Your task to perform on an android device: Open calendar and show me the third week of next month Image 0: 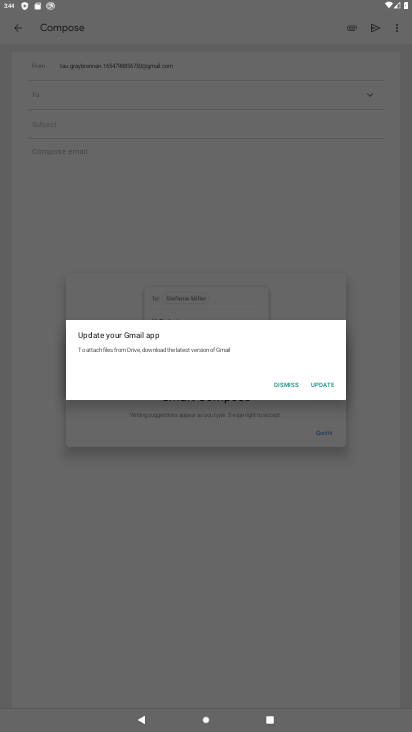
Step 0: press home button
Your task to perform on an android device: Open calendar and show me the third week of next month Image 1: 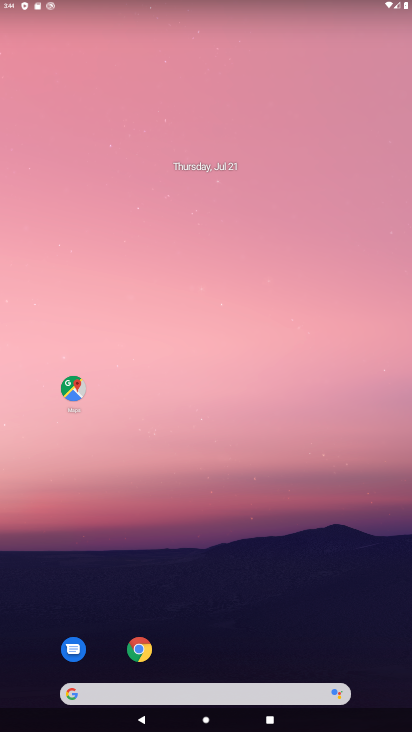
Step 1: drag from (193, 646) to (101, 78)
Your task to perform on an android device: Open calendar and show me the third week of next month Image 2: 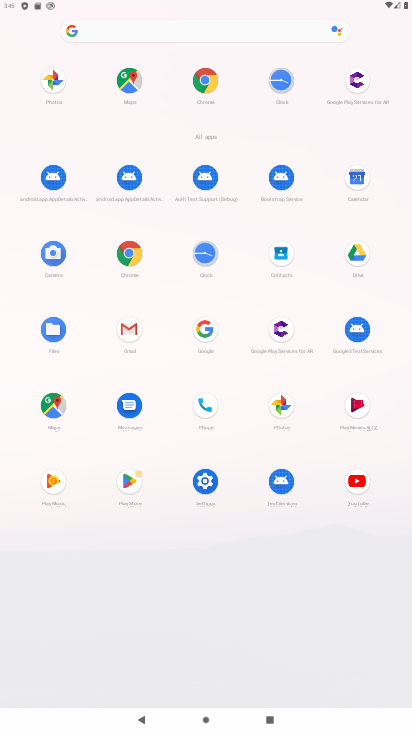
Step 2: click (361, 181)
Your task to perform on an android device: Open calendar and show me the third week of next month Image 3: 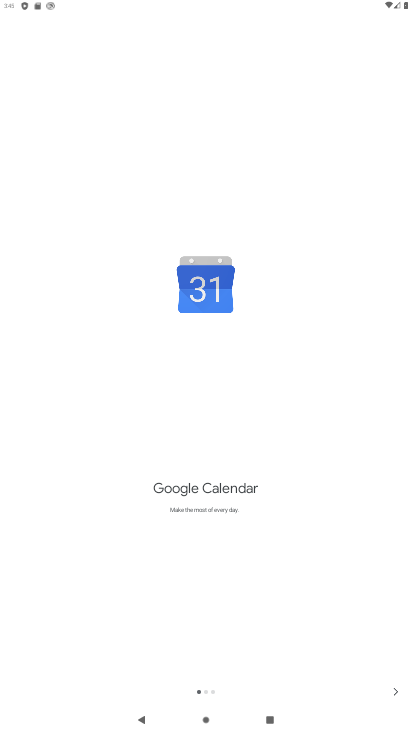
Step 3: click (392, 688)
Your task to perform on an android device: Open calendar and show me the third week of next month Image 4: 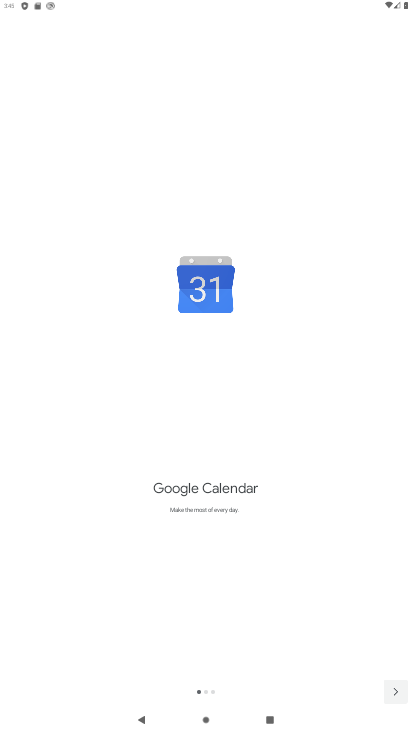
Step 4: click (392, 688)
Your task to perform on an android device: Open calendar and show me the third week of next month Image 5: 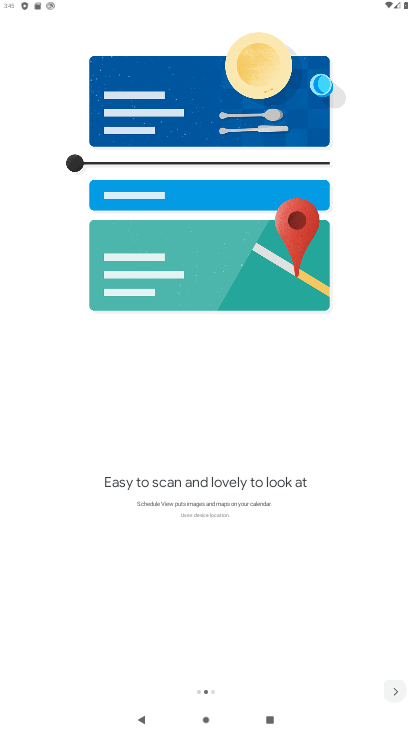
Step 5: click (392, 688)
Your task to perform on an android device: Open calendar and show me the third week of next month Image 6: 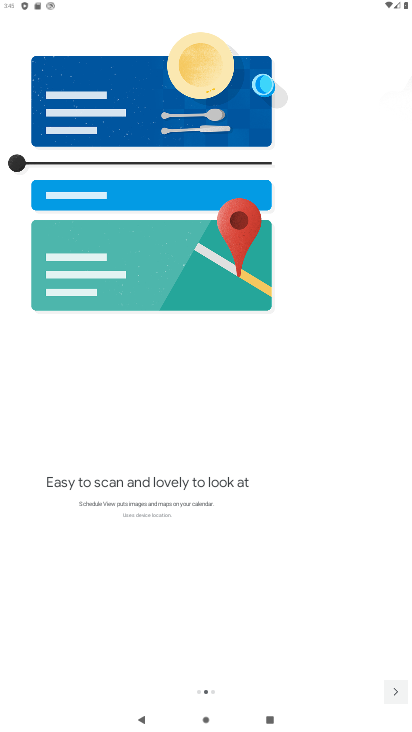
Step 6: click (392, 688)
Your task to perform on an android device: Open calendar and show me the third week of next month Image 7: 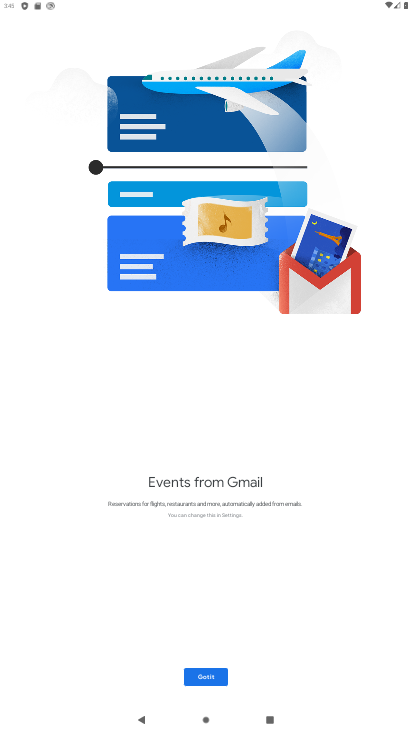
Step 7: click (392, 688)
Your task to perform on an android device: Open calendar and show me the third week of next month Image 8: 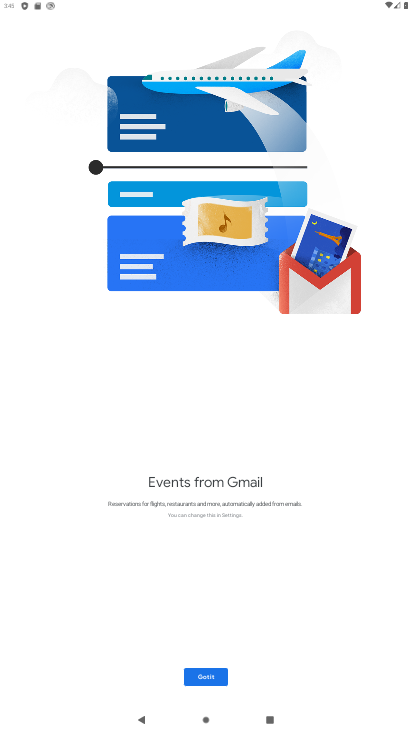
Step 8: click (212, 676)
Your task to perform on an android device: Open calendar and show me the third week of next month Image 9: 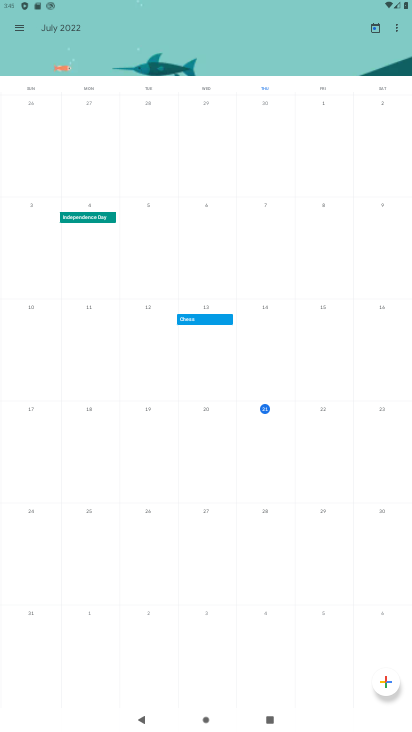
Step 9: click (21, 25)
Your task to perform on an android device: Open calendar and show me the third week of next month Image 10: 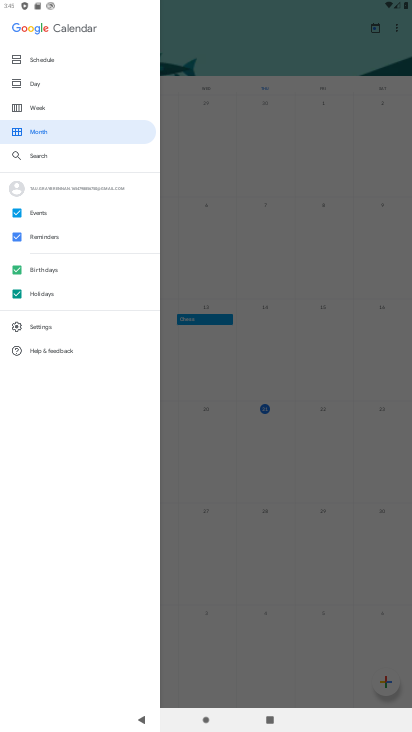
Step 10: click (26, 110)
Your task to perform on an android device: Open calendar and show me the third week of next month Image 11: 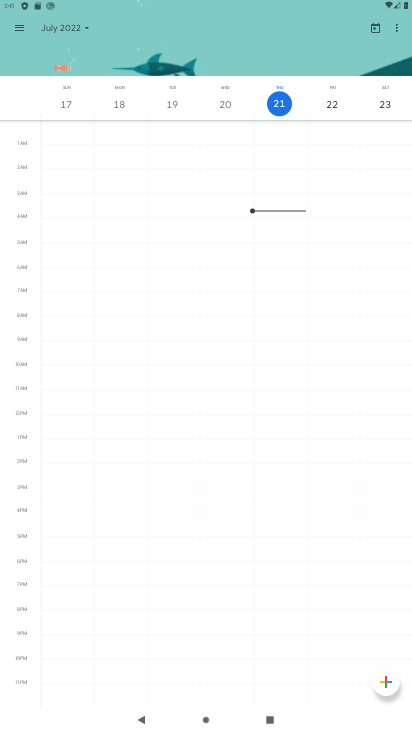
Step 11: task complete